Your task to perform on an android device: toggle improve location accuracy Image 0: 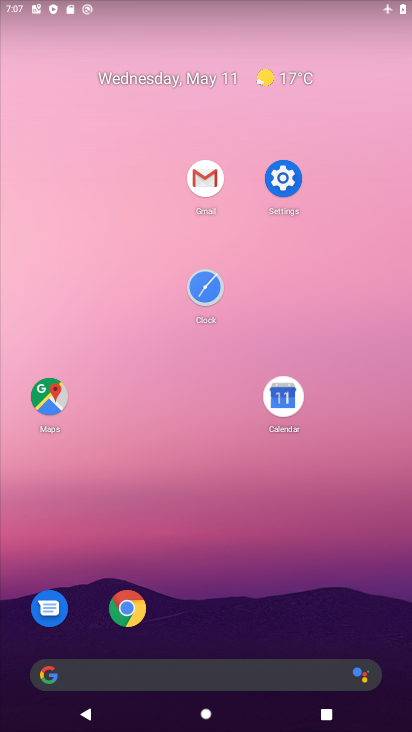
Step 0: click (316, 605)
Your task to perform on an android device: toggle improve location accuracy Image 1: 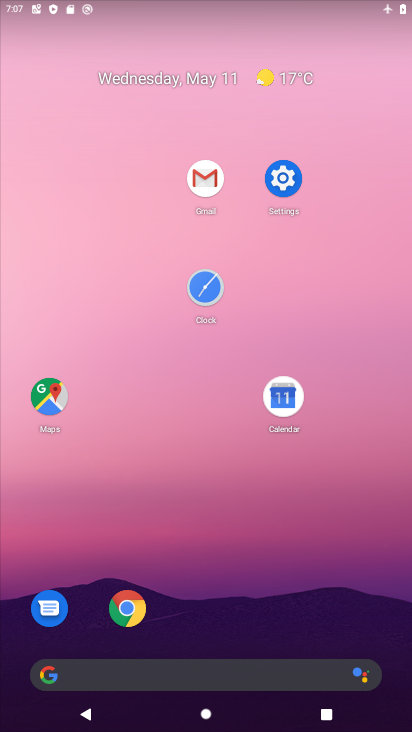
Step 1: click (294, 204)
Your task to perform on an android device: toggle improve location accuracy Image 2: 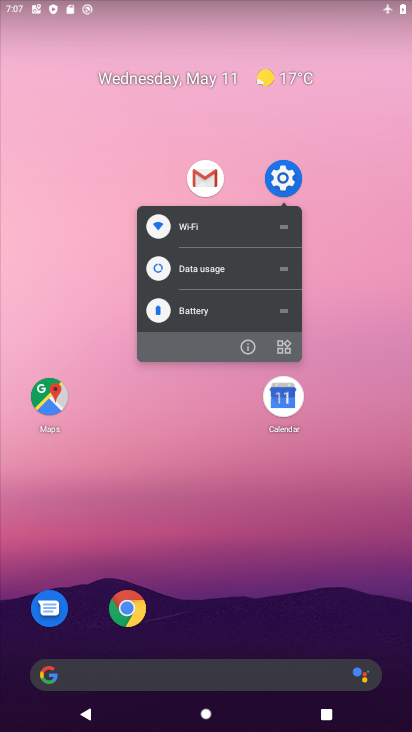
Step 2: click (294, 204)
Your task to perform on an android device: toggle improve location accuracy Image 3: 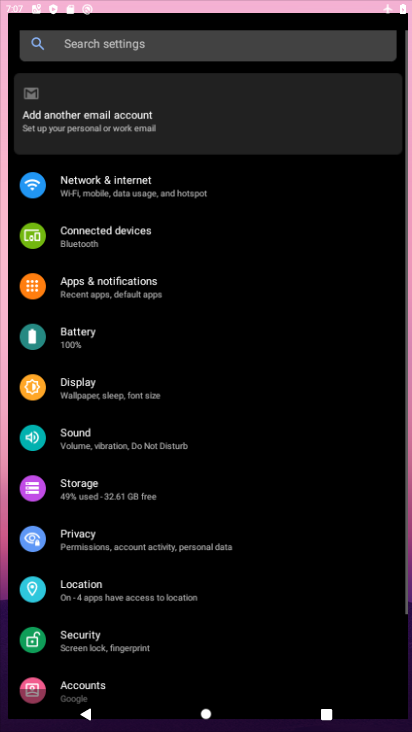
Step 3: click (292, 185)
Your task to perform on an android device: toggle improve location accuracy Image 4: 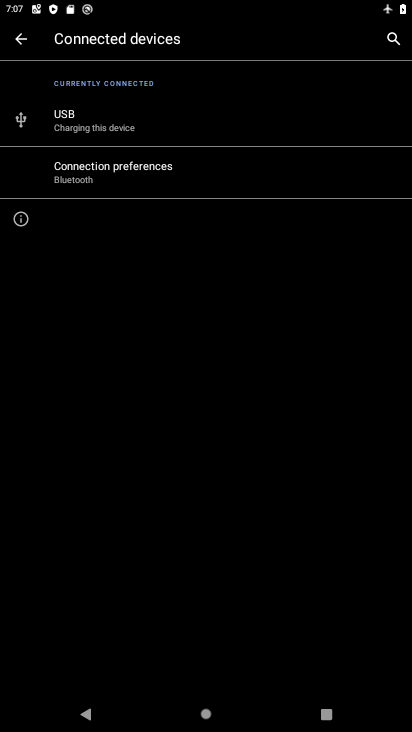
Step 4: click (34, 47)
Your task to perform on an android device: toggle improve location accuracy Image 5: 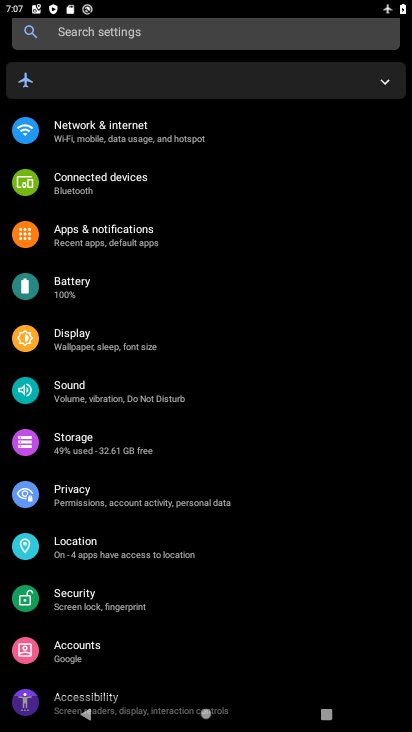
Step 5: click (90, 555)
Your task to perform on an android device: toggle improve location accuracy Image 6: 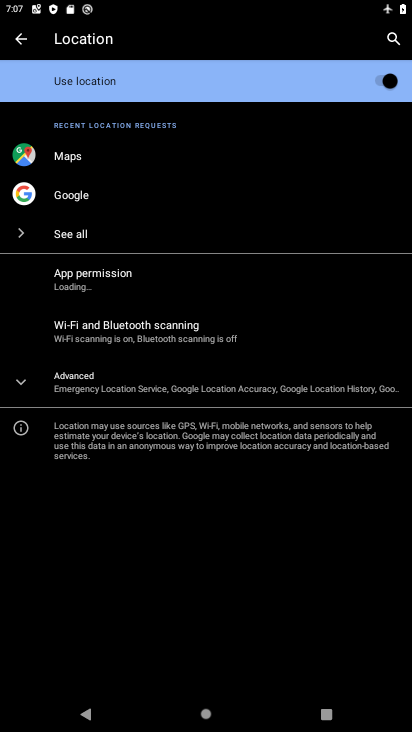
Step 6: click (93, 376)
Your task to perform on an android device: toggle improve location accuracy Image 7: 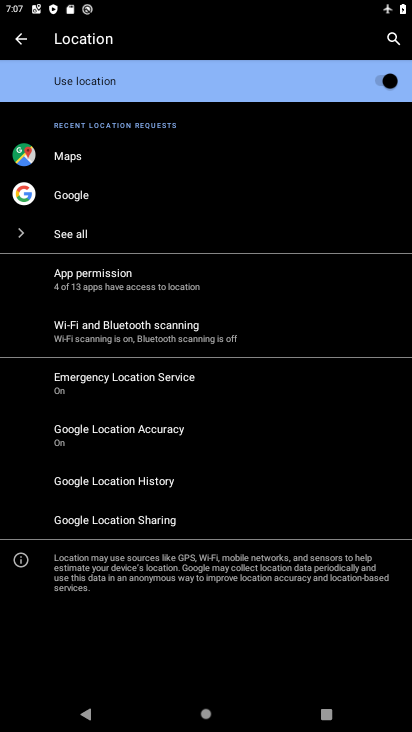
Step 7: click (106, 428)
Your task to perform on an android device: toggle improve location accuracy Image 8: 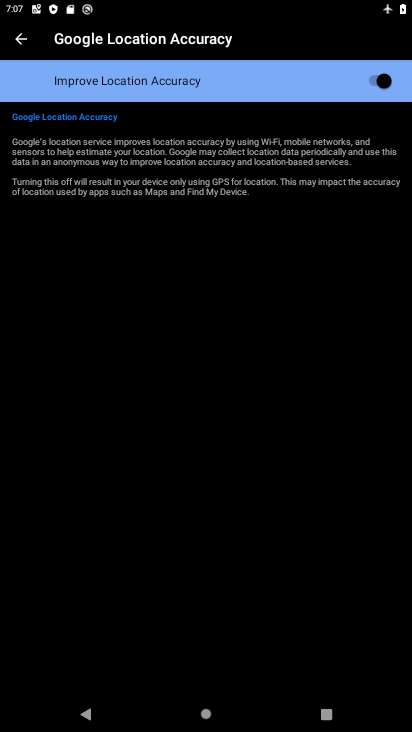
Step 8: click (355, 90)
Your task to perform on an android device: toggle improve location accuracy Image 9: 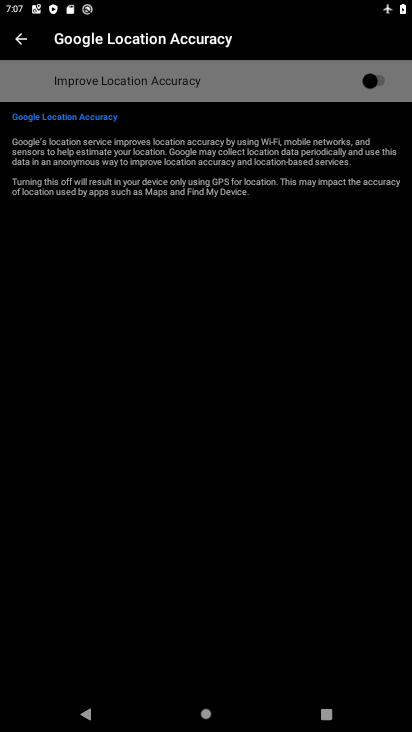
Step 9: task complete